Your task to perform on an android device: open chrome privacy settings Image 0: 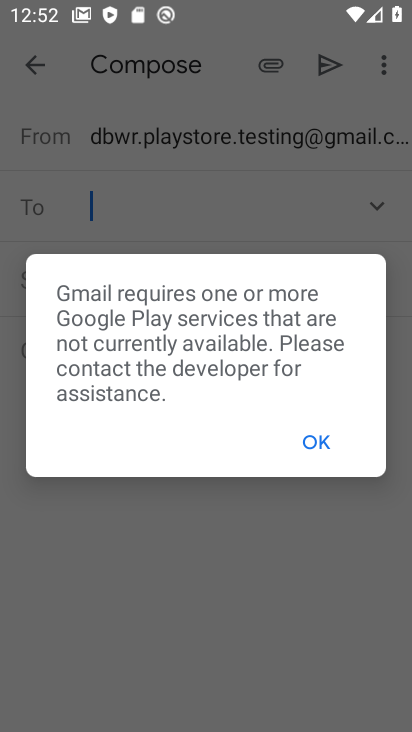
Step 0: click (329, 439)
Your task to perform on an android device: open chrome privacy settings Image 1: 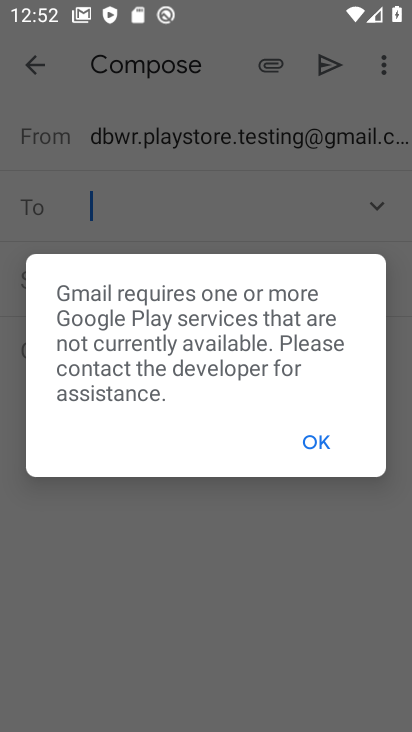
Step 1: click (329, 439)
Your task to perform on an android device: open chrome privacy settings Image 2: 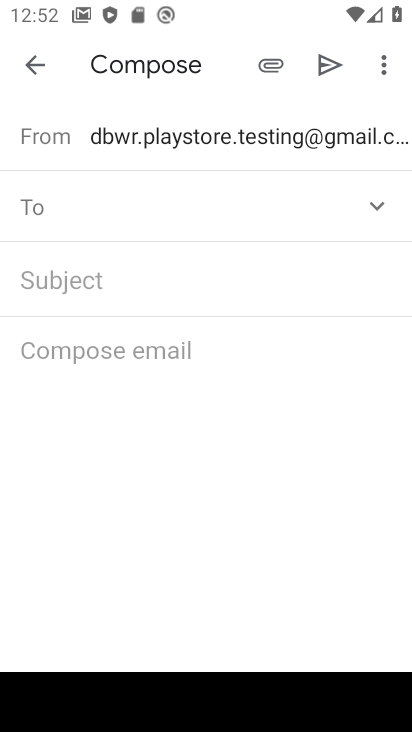
Step 2: press home button
Your task to perform on an android device: open chrome privacy settings Image 3: 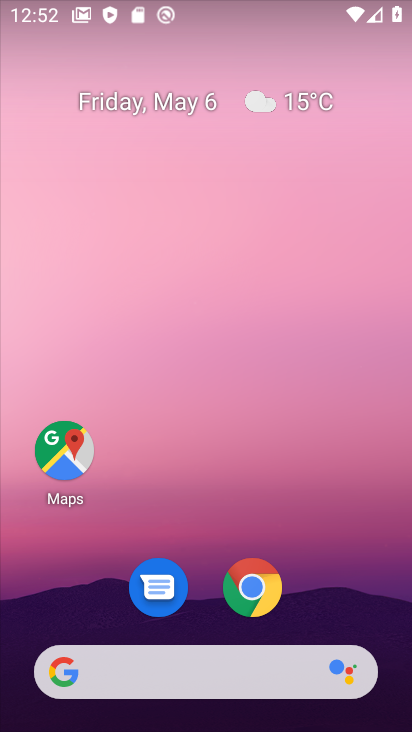
Step 3: click (252, 584)
Your task to perform on an android device: open chrome privacy settings Image 4: 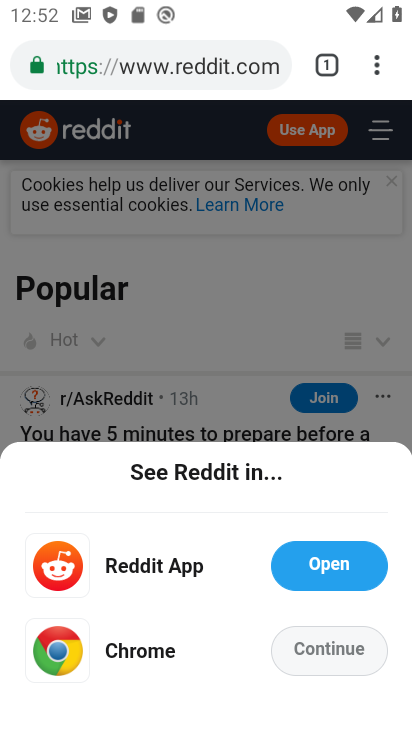
Step 4: click (339, 645)
Your task to perform on an android device: open chrome privacy settings Image 5: 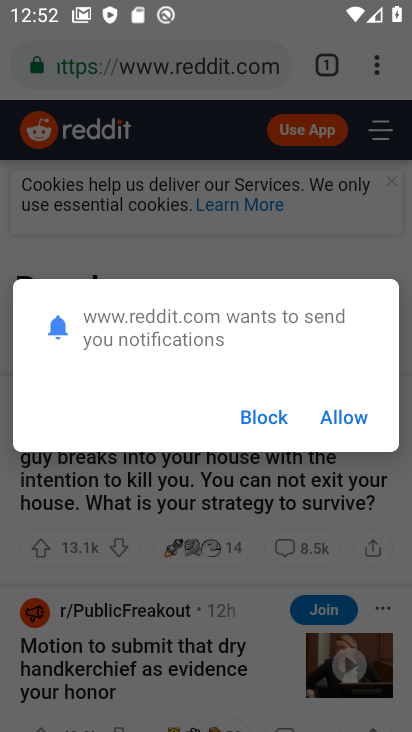
Step 5: click (272, 420)
Your task to perform on an android device: open chrome privacy settings Image 6: 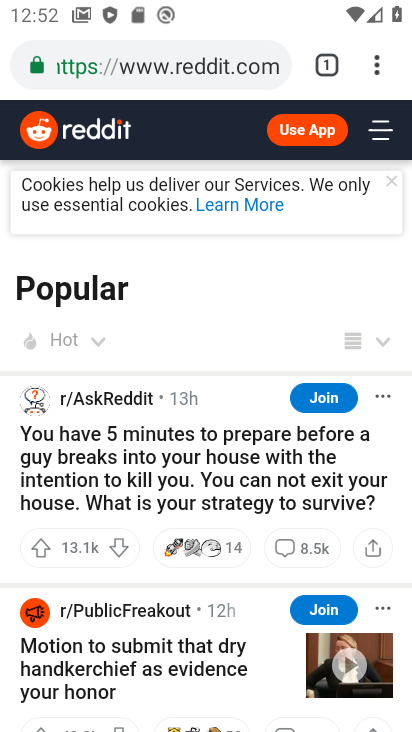
Step 6: click (272, 420)
Your task to perform on an android device: open chrome privacy settings Image 7: 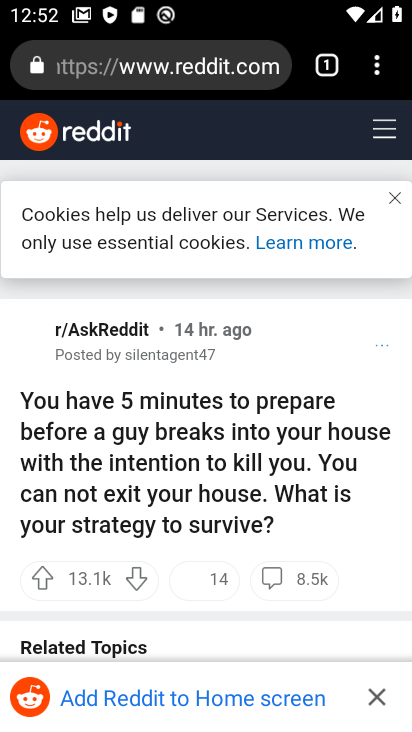
Step 7: click (374, 69)
Your task to perform on an android device: open chrome privacy settings Image 8: 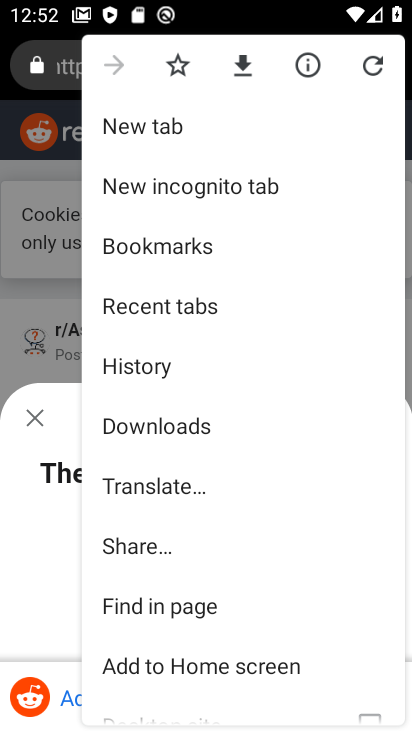
Step 8: drag from (141, 593) to (140, 400)
Your task to perform on an android device: open chrome privacy settings Image 9: 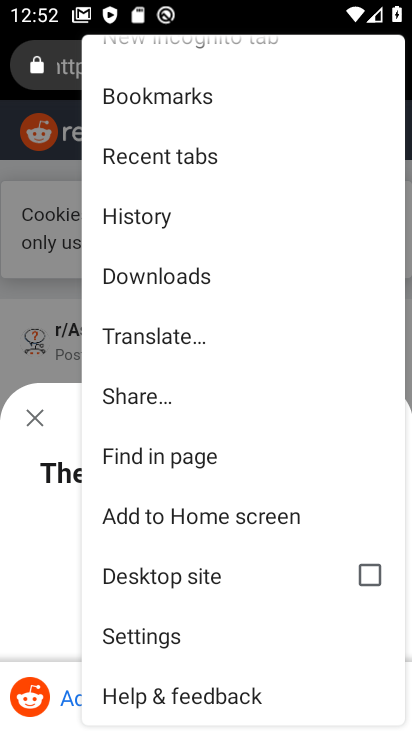
Step 9: click (140, 642)
Your task to perform on an android device: open chrome privacy settings Image 10: 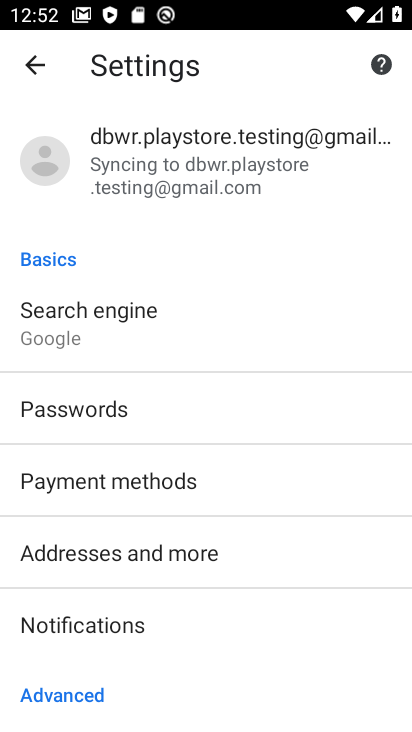
Step 10: drag from (185, 541) to (195, 483)
Your task to perform on an android device: open chrome privacy settings Image 11: 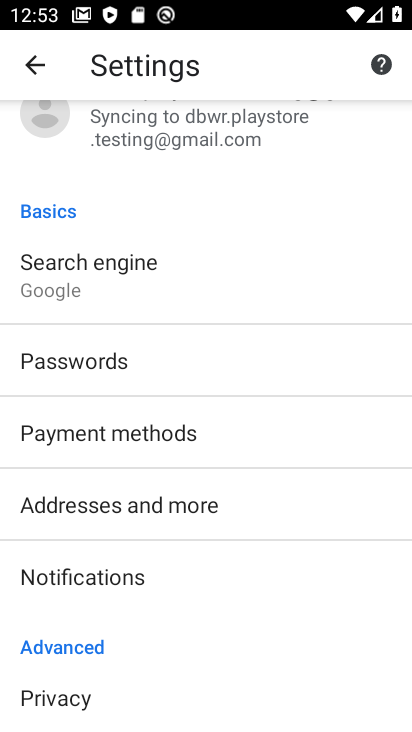
Step 11: drag from (169, 562) to (183, 425)
Your task to perform on an android device: open chrome privacy settings Image 12: 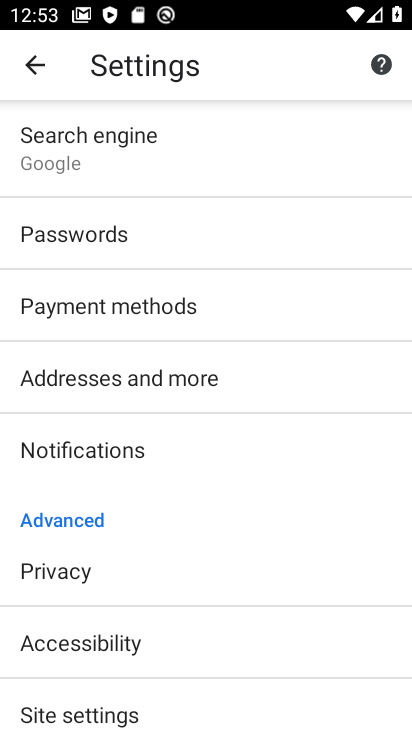
Step 12: click (58, 569)
Your task to perform on an android device: open chrome privacy settings Image 13: 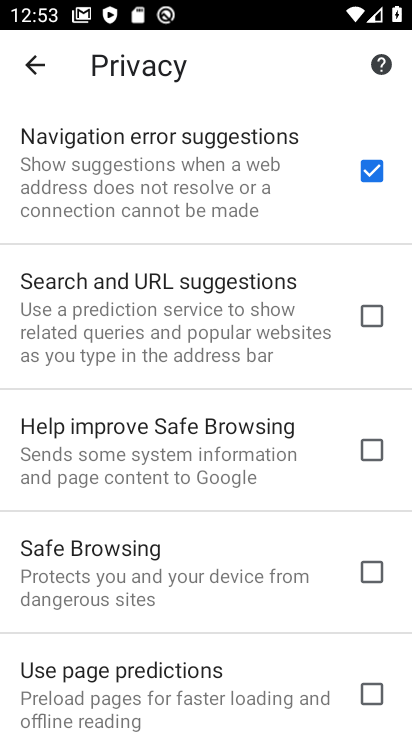
Step 13: task complete